Your task to perform on an android device: set an alarm Image 0: 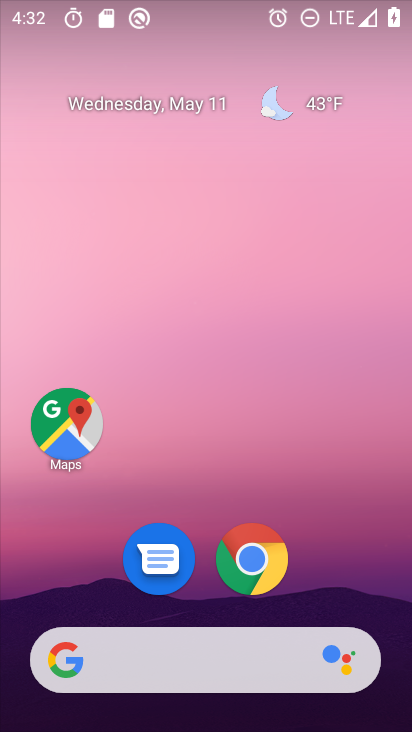
Step 0: drag from (342, 555) to (238, 93)
Your task to perform on an android device: set an alarm Image 1: 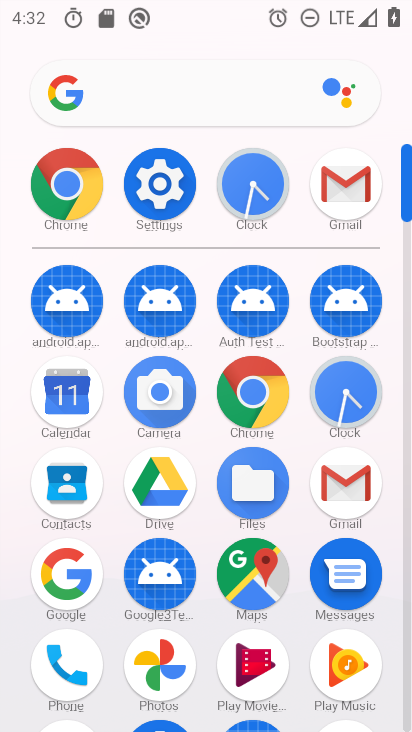
Step 1: click (249, 185)
Your task to perform on an android device: set an alarm Image 2: 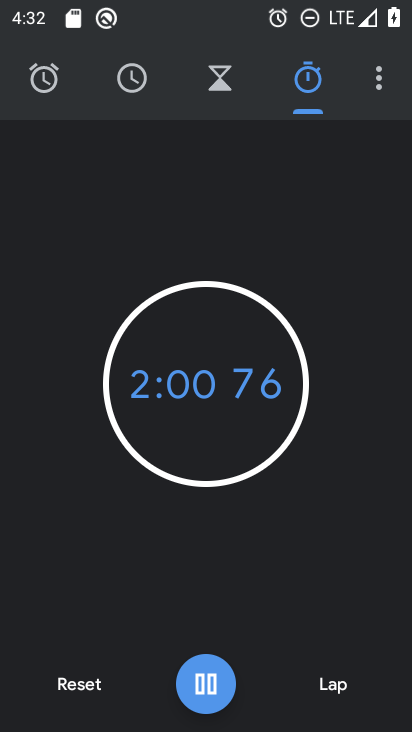
Step 2: click (47, 79)
Your task to perform on an android device: set an alarm Image 3: 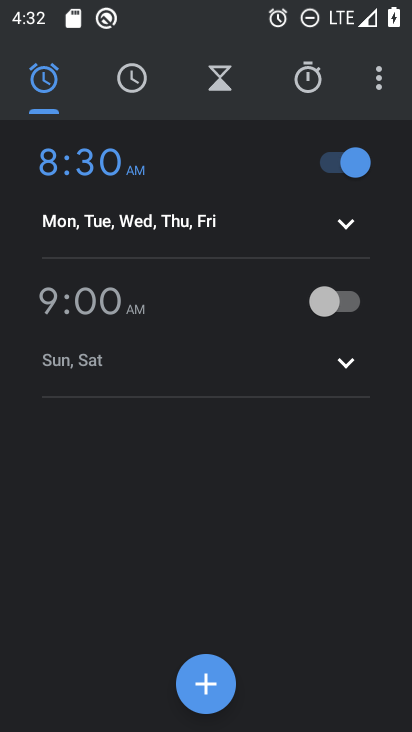
Step 3: click (335, 308)
Your task to perform on an android device: set an alarm Image 4: 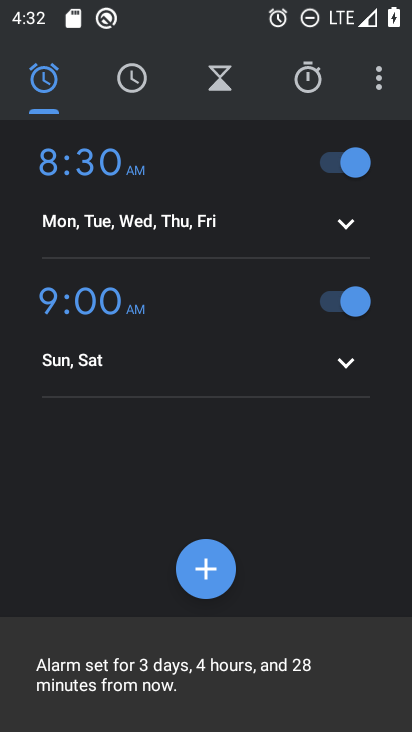
Step 4: task complete